Your task to perform on an android device: change the clock style Image 0: 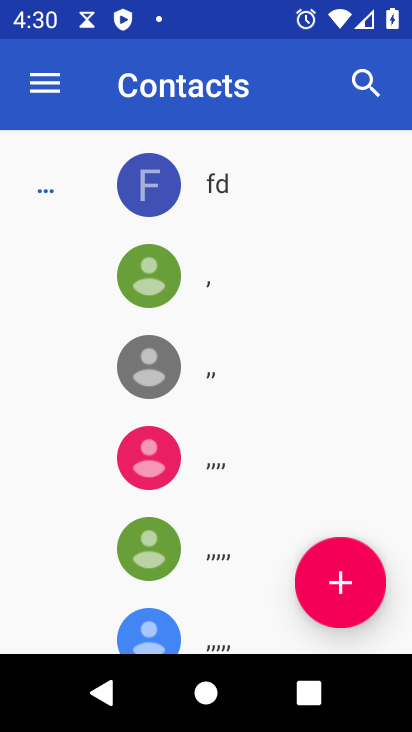
Step 0: press home button
Your task to perform on an android device: change the clock style Image 1: 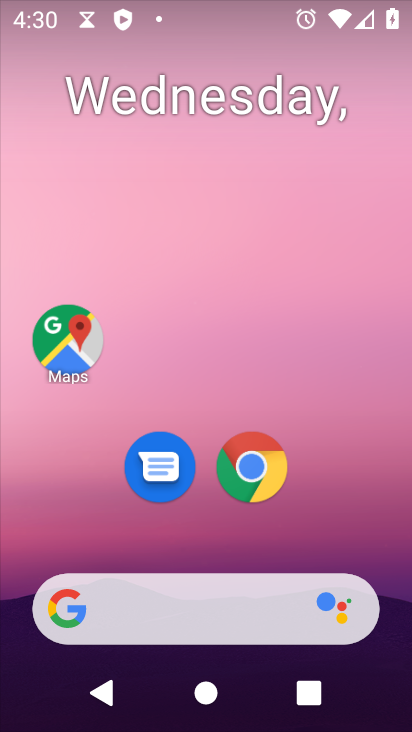
Step 1: drag from (386, 486) to (332, 36)
Your task to perform on an android device: change the clock style Image 2: 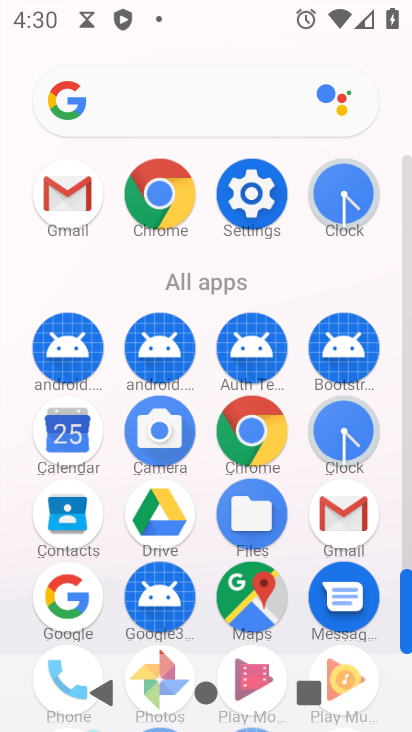
Step 2: click (329, 179)
Your task to perform on an android device: change the clock style Image 3: 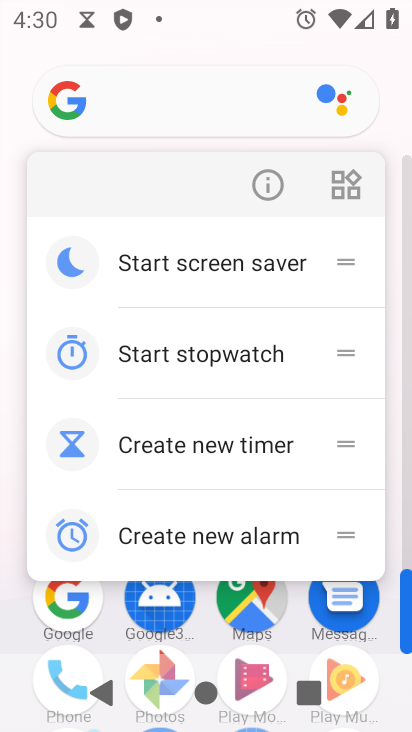
Step 3: press back button
Your task to perform on an android device: change the clock style Image 4: 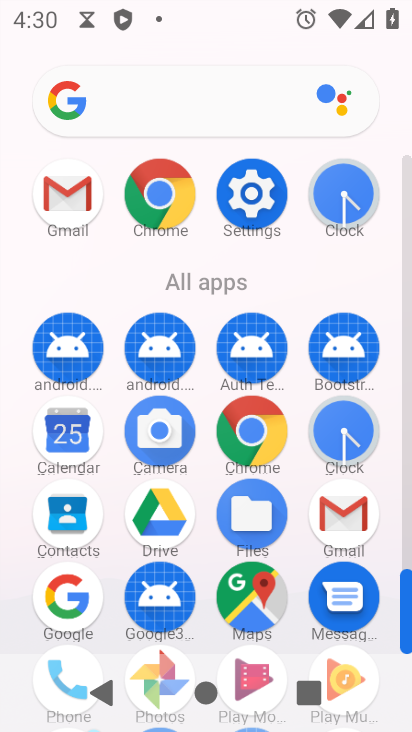
Step 4: click (369, 188)
Your task to perform on an android device: change the clock style Image 5: 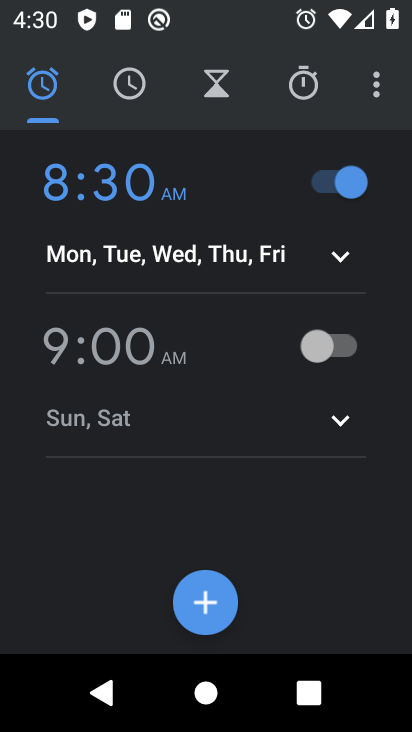
Step 5: click (364, 103)
Your task to perform on an android device: change the clock style Image 6: 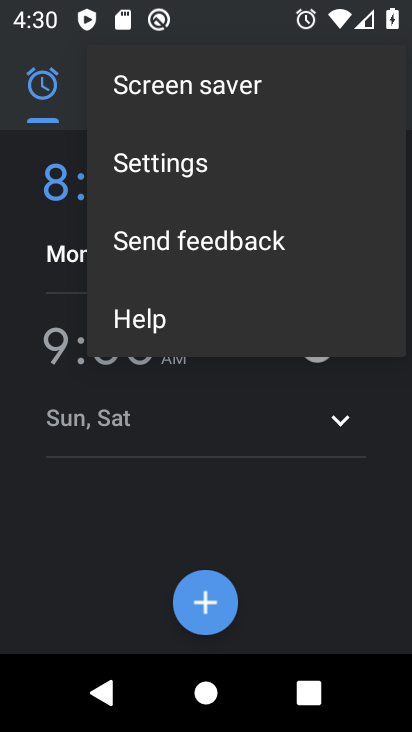
Step 6: click (191, 159)
Your task to perform on an android device: change the clock style Image 7: 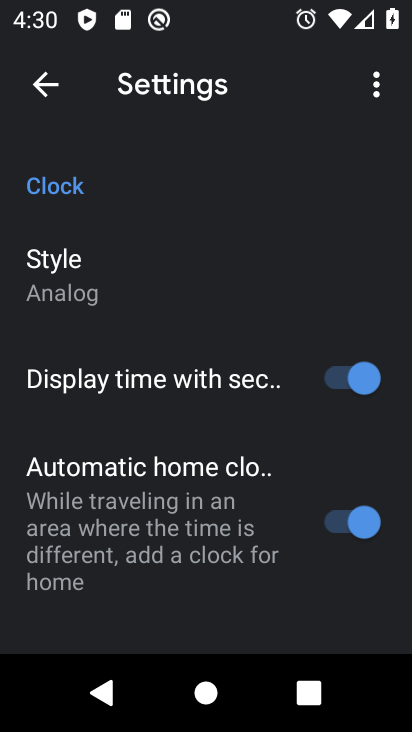
Step 7: click (86, 289)
Your task to perform on an android device: change the clock style Image 8: 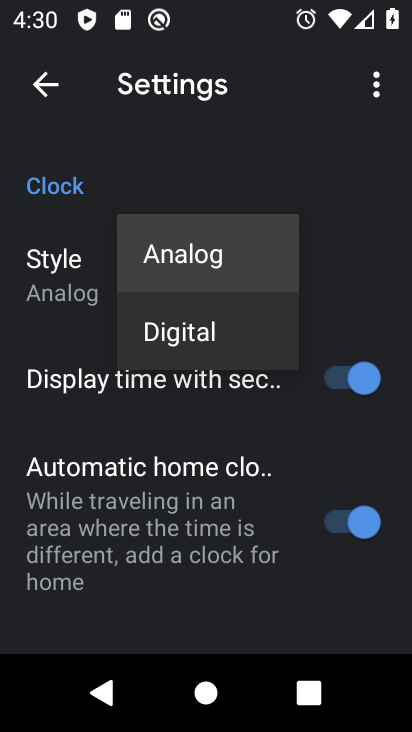
Step 8: click (187, 339)
Your task to perform on an android device: change the clock style Image 9: 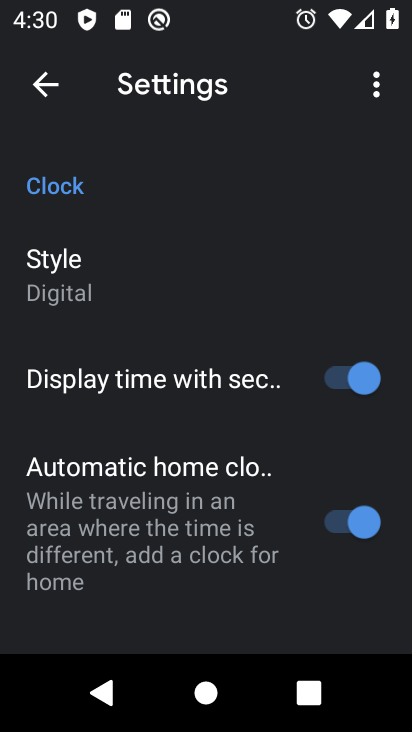
Step 9: task complete